Your task to perform on an android device: add a label to a message in the gmail app Image 0: 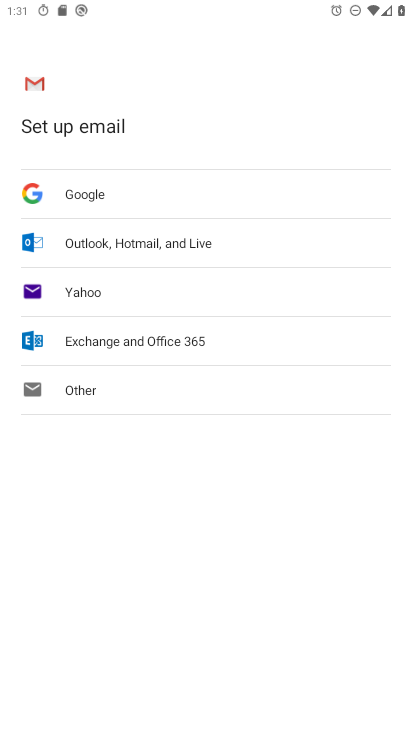
Step 0: click (308, 316)
Your task to perform on an android device: add a label to a message in the gmail app Image 1: 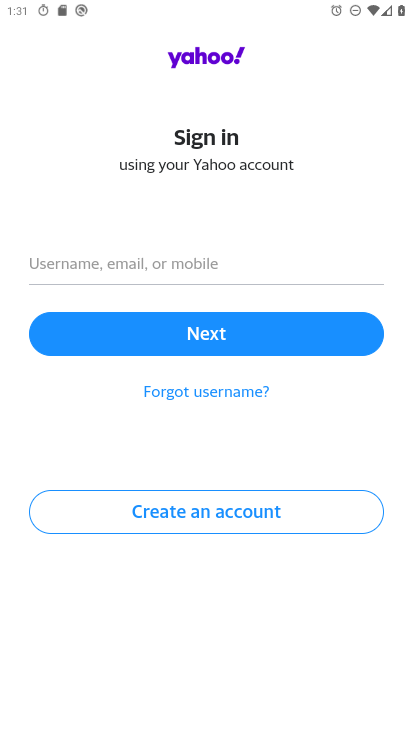
Step 1: drag from (365, 282) to (394, 200)
Your task to perform on an android device: add a label to a message in the gmail app Image 2: 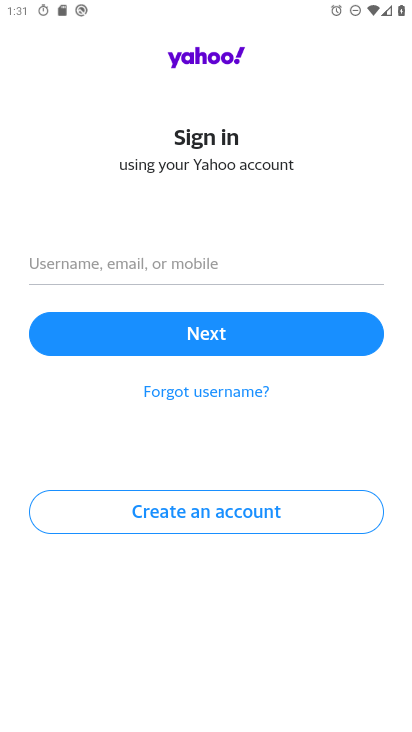
Step 2: drag from (199, 599) to (251, 292)
Your task to perform on an android device: add a label to a message in the gmail app Image 3: 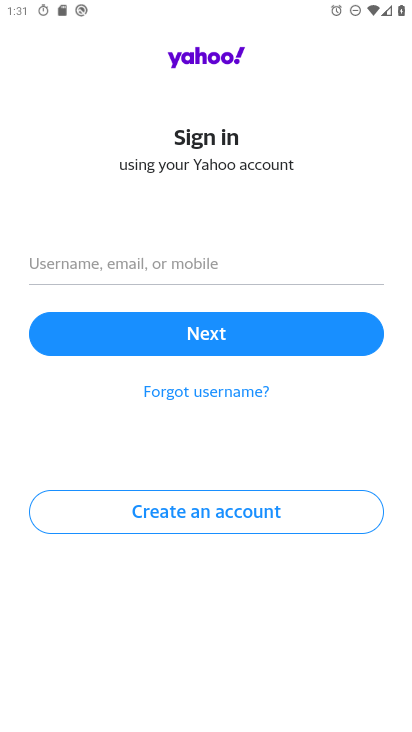
Step 3: drag from (238, 507) to (271, 255)
Your task to perform on an android device: add a label to a message in the gmail app Image 4: 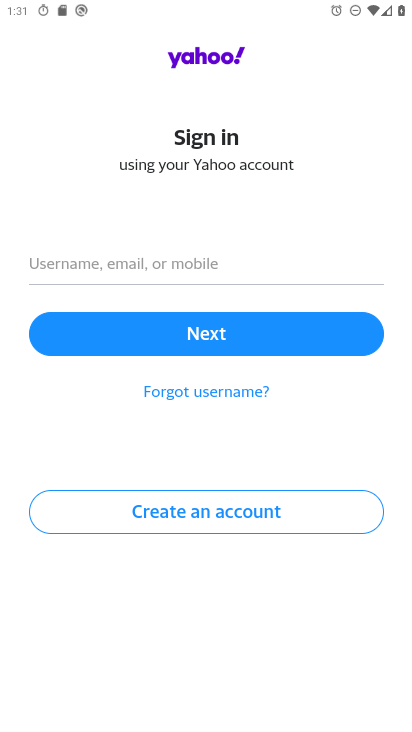
Step 4: press home button
Your task to perform on an android device: add a label to a message in the gmail app Image 5: 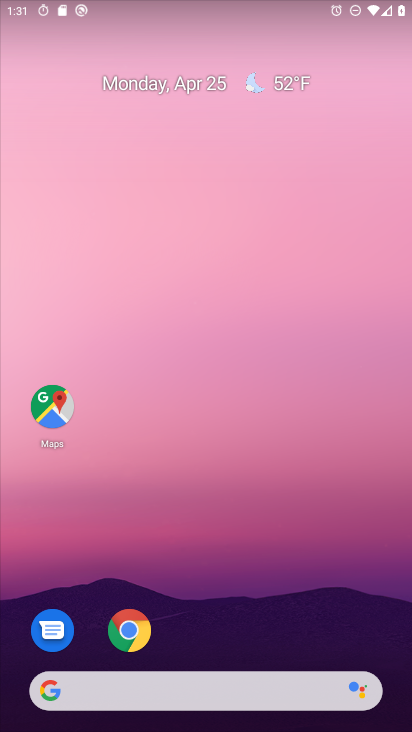
Step 5: drag from (229, 640) to (220, 142)
Your task to perform on an android device: add a label to a message in the gmail app Image 6: 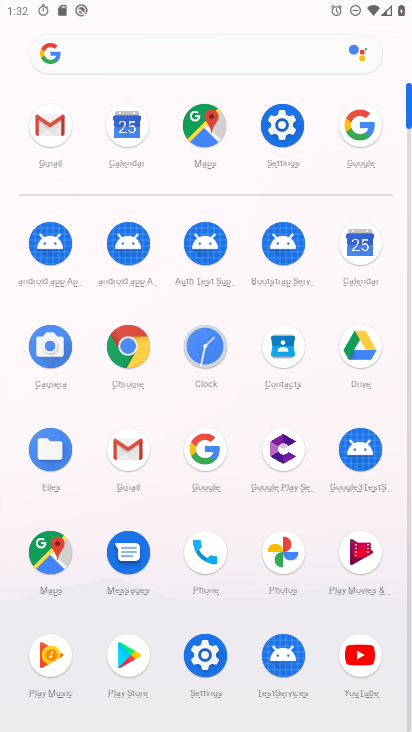
Step 6: click (127, 450)
Your task to perform on an android device: add a label to a message in the gmail app Image 7: 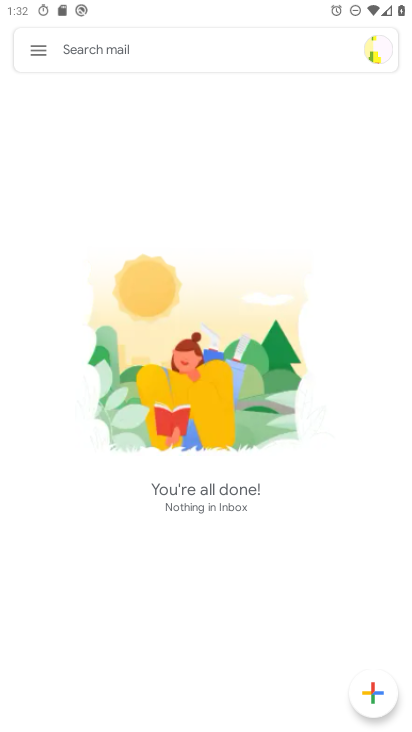
Step 7: drag from (265, 492) to (310, 263)
Your task to perform on an android device: add a label to a message in the gmail app Image 8: 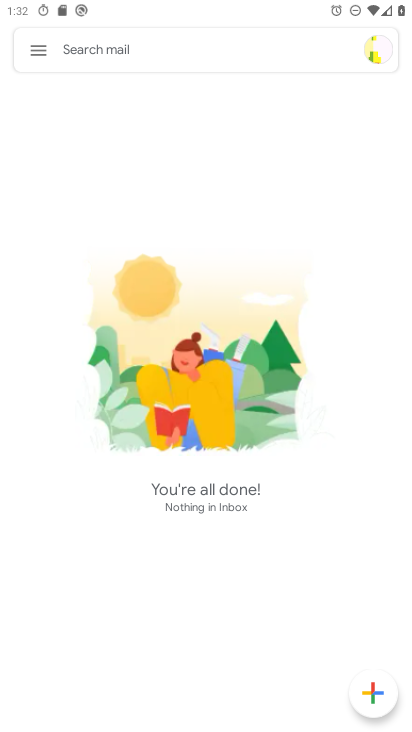
Step 8: click (27, 50)
Your task to perform on an android device: add a label to a message in the gmail app Image 9: 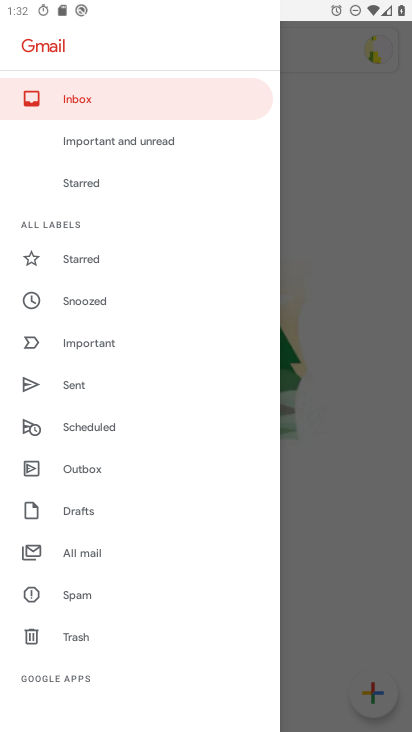
Step 9: click (119, 95)
Your task to perform on an android device: add a label to a message in the gmail app Image 10: 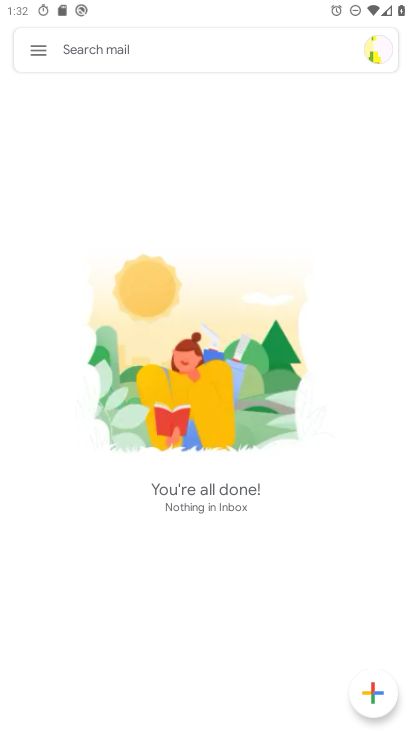
Step 10: task complete